Your task to perform on an android device: add a contact in the contacts app Image 0: 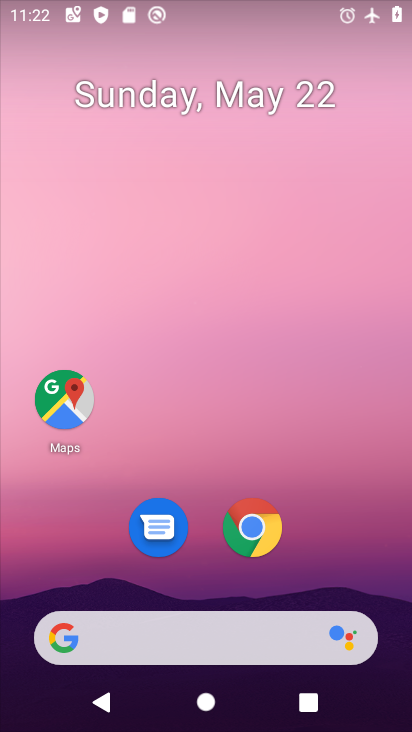
Step 0: drag from (333, 561) to (274, 0)
Your task to perform on an android device: add a contact in the contacts app Image 1: 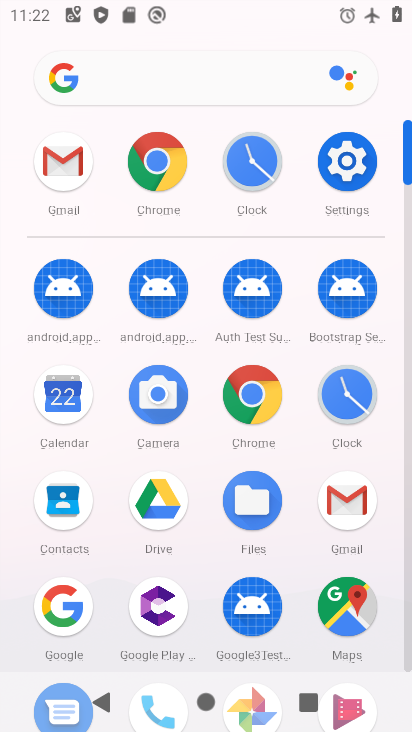
Step 1: click (405, 539)
Your task to perform on an android device: add a contact in the contacts app Image 2: 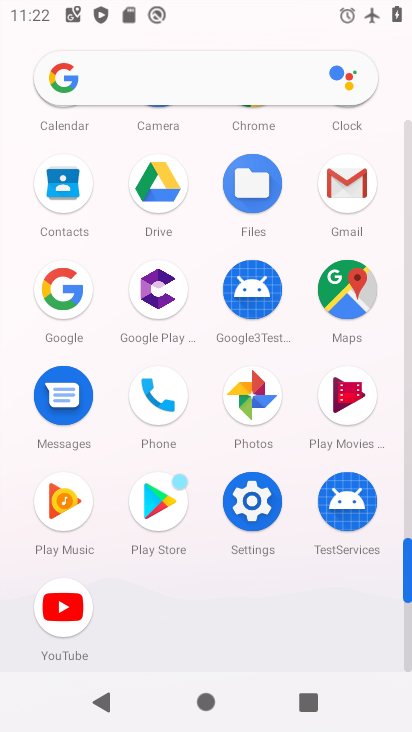
Step 2: click (175, 413)
Your task to perform on an android device: add a contact in the contacts app Image 3: 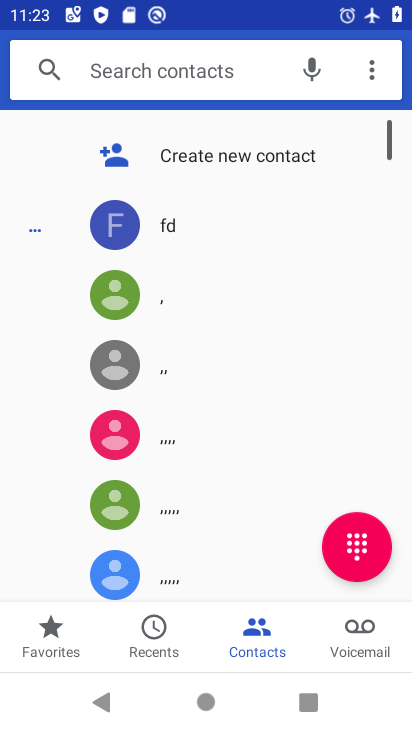
Step 3: click (145, 134)
Your task to perform on an android device: add a contact in the contacts app Image 4: 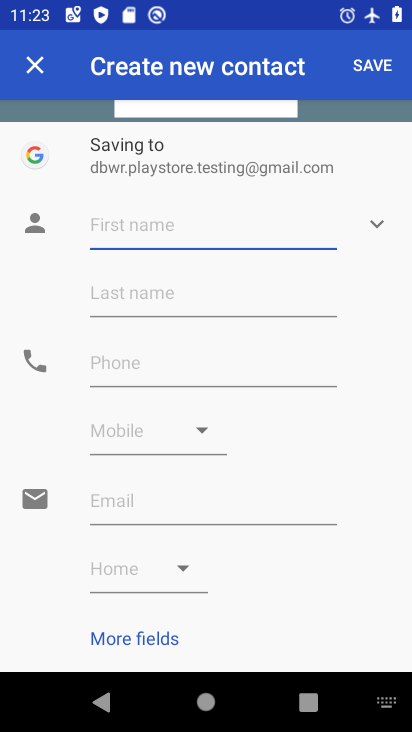
Step 4: type "asdewd"
Your task to perform on an android device: add a contact in the contacts app Image 5: 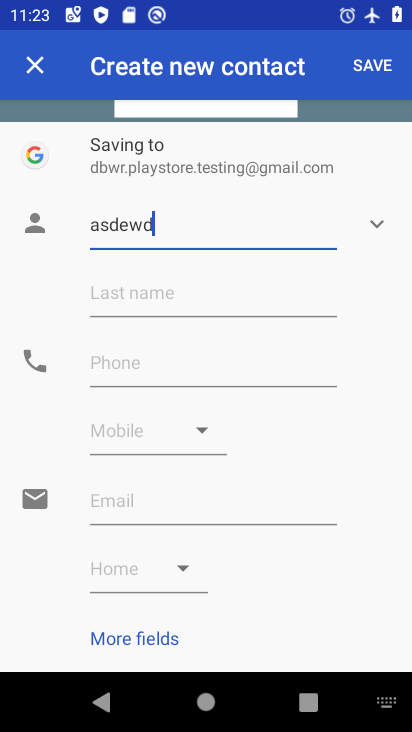
Step 5: click (133, 291)
Your task to perform on an android device: add a contact in the contacts app Image 6: 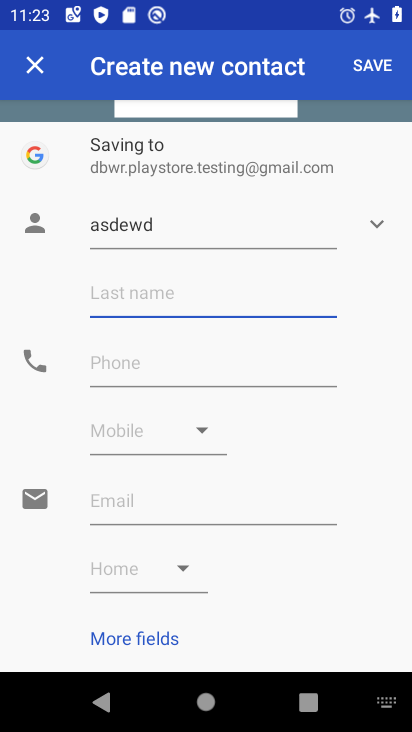
Step 6: type "dfvds"
Your task to perform on an android device: add a contact in the contacts app Image 7: 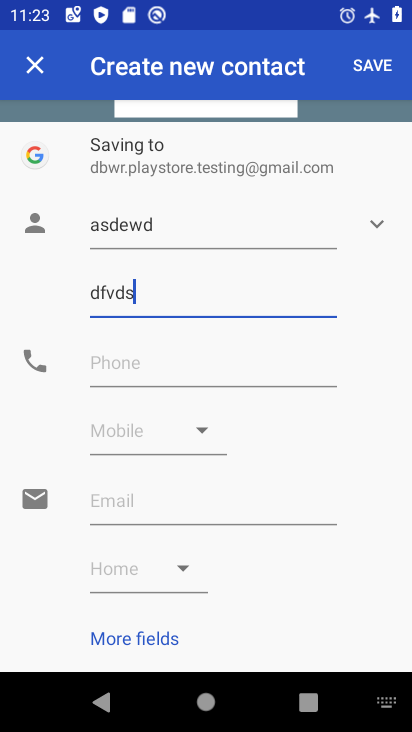
Step 7: click (135, 359)
Your task to perform on an android device: add a contact in the contacts app Image 8: 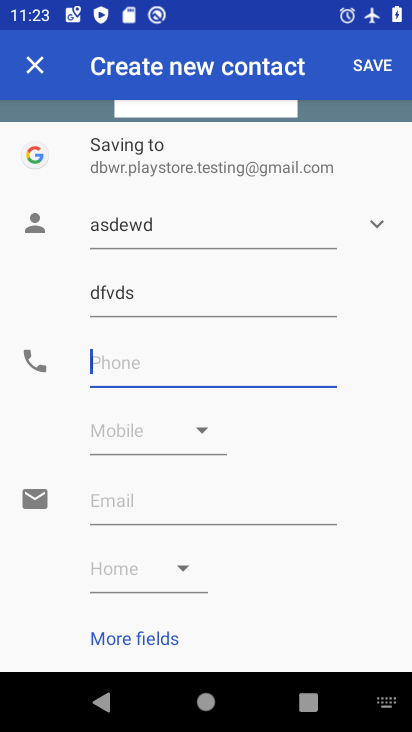
Step 8: type "34534534654"
Your task to perform on an android device: add a contact in the contacts app Image 9: 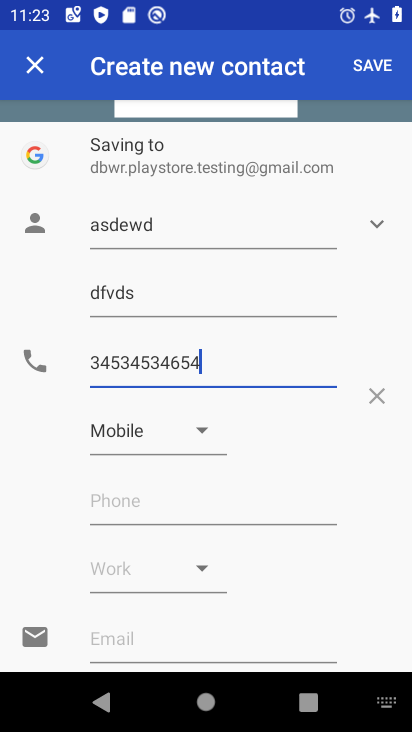
Step 9: click (376, 62)
Your task to perform on an android device: add a contact in the contacts app Image 10: 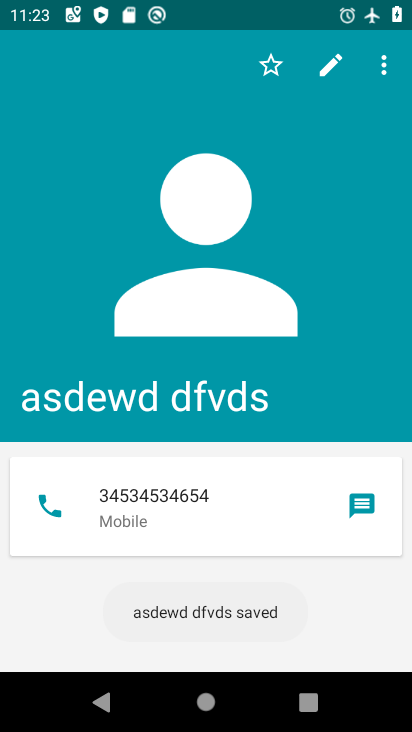
Step 10: task complete